Your task to perform on an android device: turn off sleep mode Image 0: 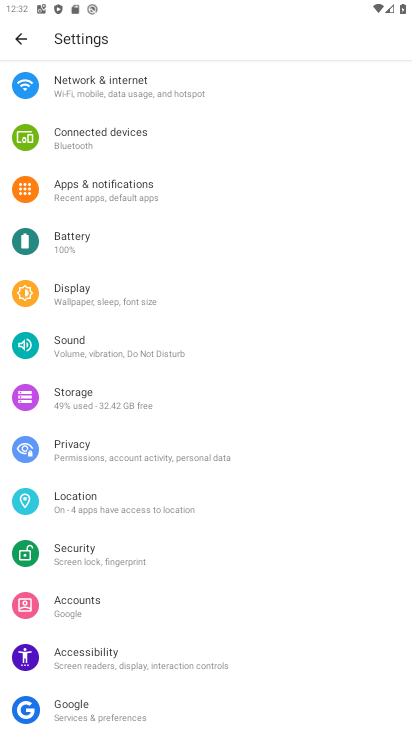
Step 0: click (129, 295)
Your task to perform on an android device: turn off sleep mode Image 1: 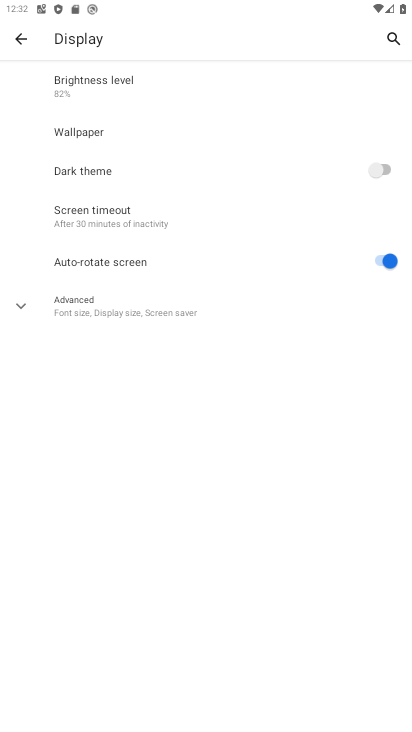
Step 1: click (117, 306)
Your task to perform on an android device: turn off sleep mode Image 2: 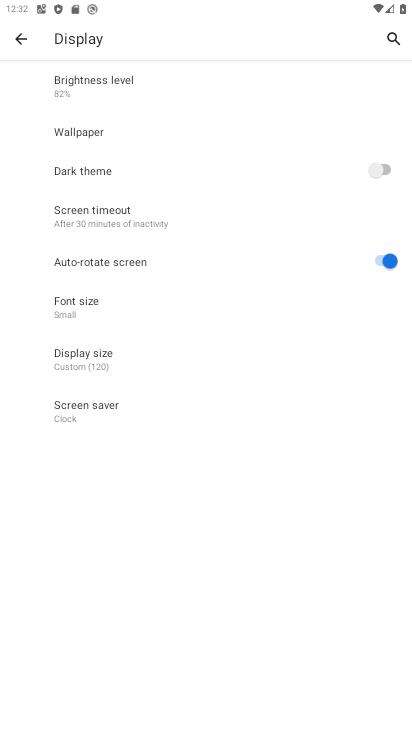
Step 2: task complete